Your task to perform on an android device: turn on airplane mode Image 0: 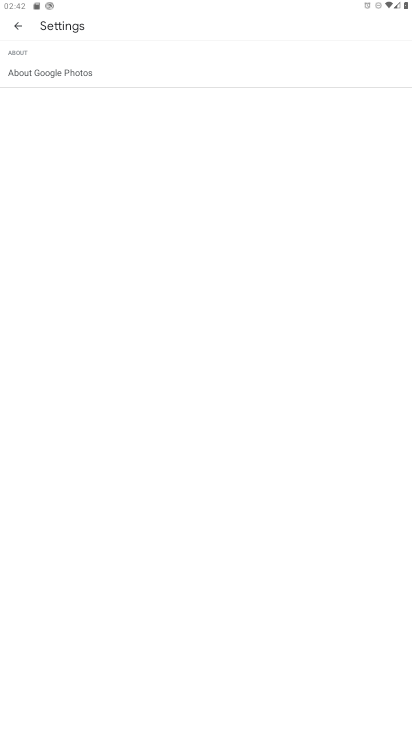
Step 0: press home button
Your task to perform on an android device: turn on airplane mode Image 1: 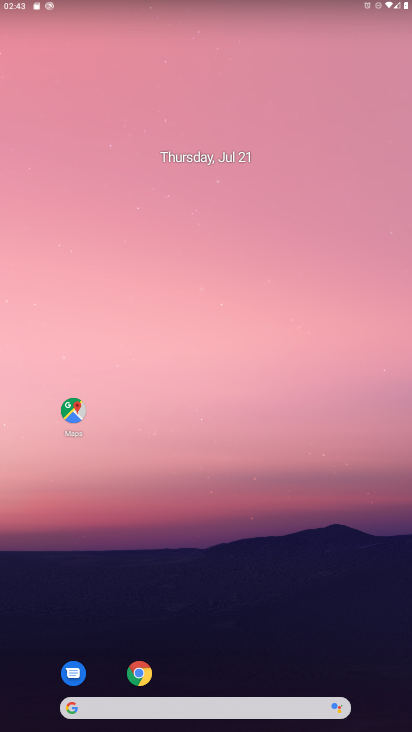
Step 1: drag from (231, 687) to (218, 389)
Your task to perform on an android device: turn on airplane mode Image 2: 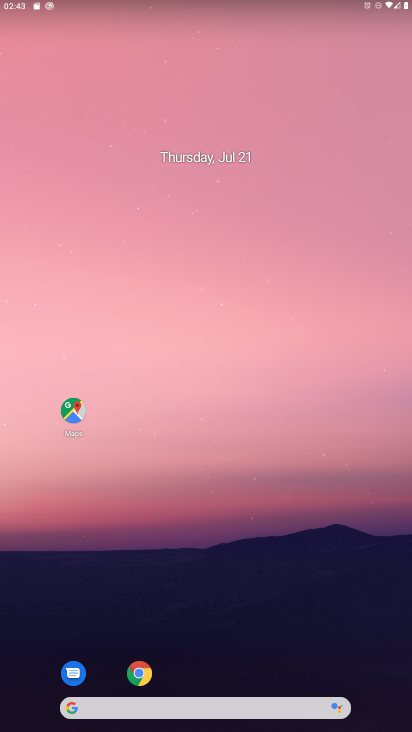
Step 2: drag from (244, 661) to (237, 297)
Your task to perform on an android device: turn on airplane mode Image 3: 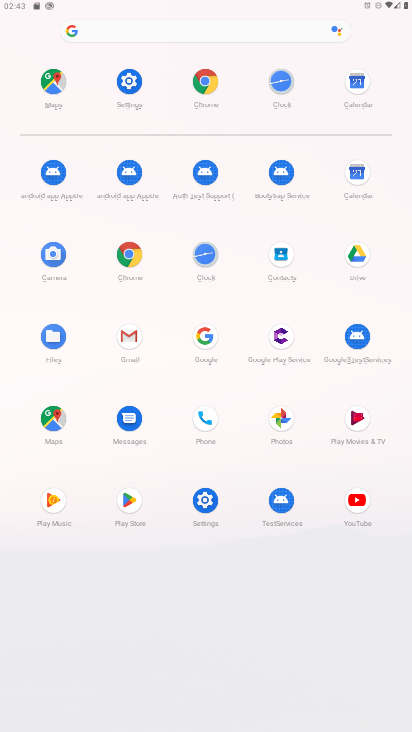
Step 3: click (125, 82)
Your task to perform on an android device: turn on airplane mode Image 4: 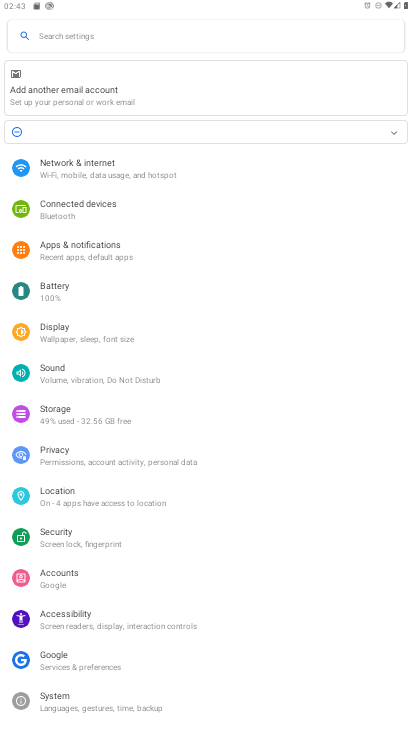
Step 4: click (119, 165)
Your task to perform on an android device: turn on airplane mode Image 5: 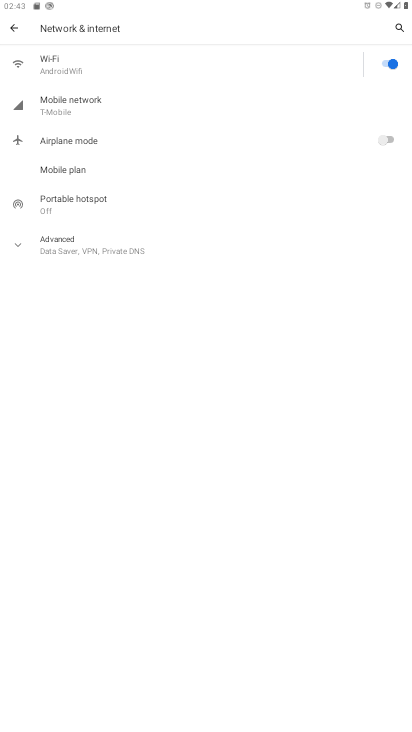
Step 5: click (109, 140)
Your task to perform on an android device: turn on airplane mode Image 6: 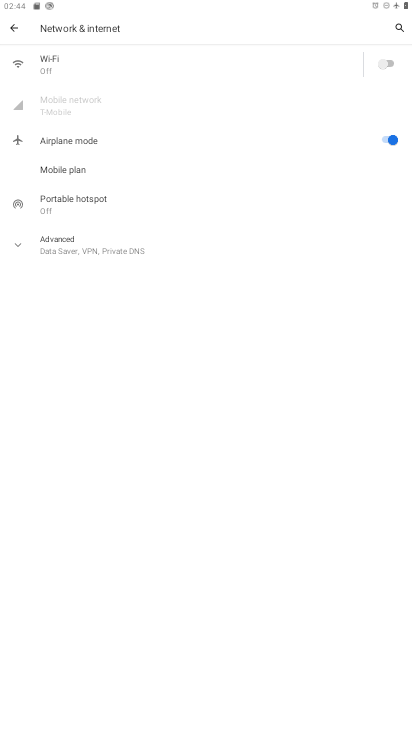
Step 6: task complete